Your task to perform on an android device: Open Reddit.com Image 0: 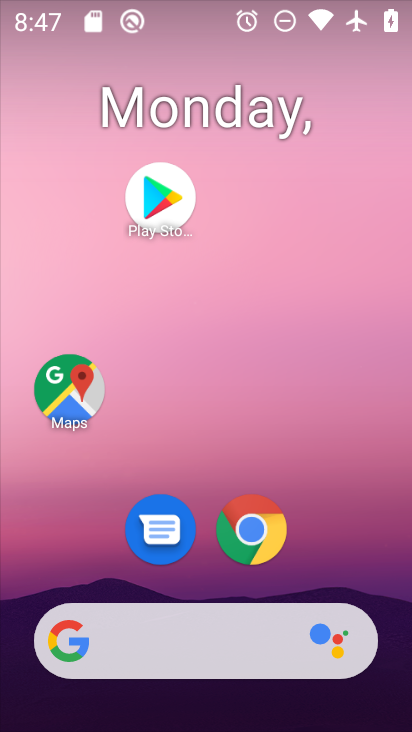
Step 0: drag from (324, 435) to (235, 109)
Your task to perform on an android device: Open Reddit.com Image 1: 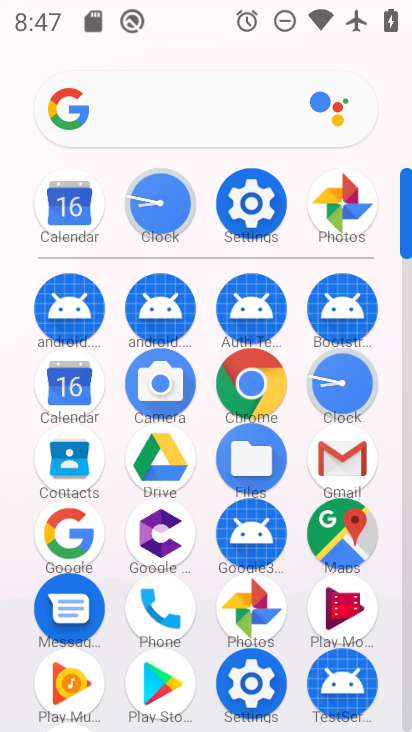
Step 1: click (250, 381)
Your task to perform on an android device: Open Reddit.com Image 2: 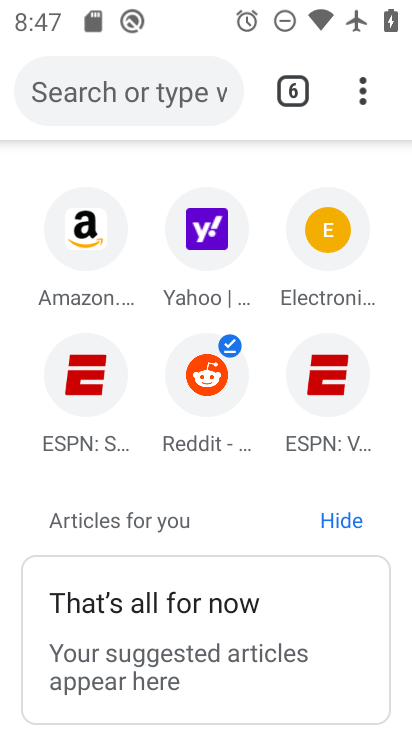
Step 2: click (361, 101)
Your task to perform on an android device: Open Reddit.com Image 3: 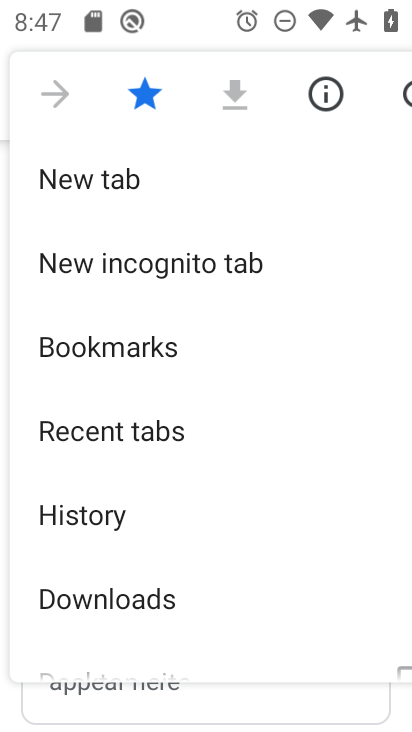
Step 3: click (96, 180)
Your task to perform on an android device: Open Reddit.com Image 4: 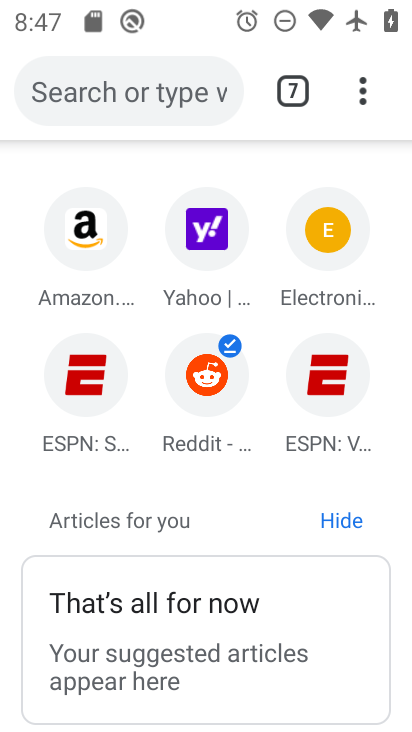
Step 4: click (201, 375)
Your task to perform on an android device: Open Reddit.com Image 5: 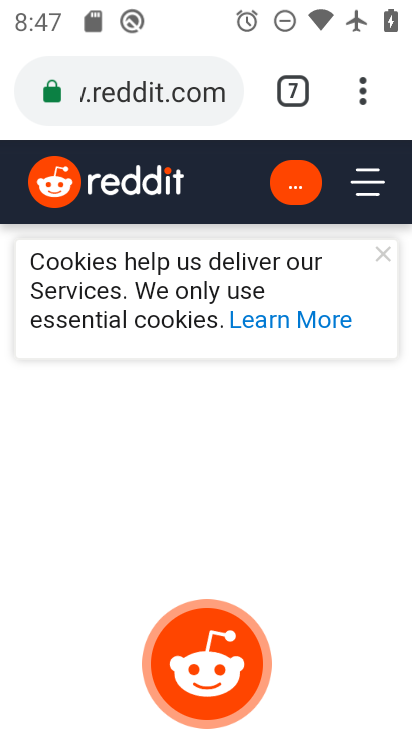
Step 5: task complete